Your task to perform on an android device: install app "Duolingo: language lessons" Image 0: 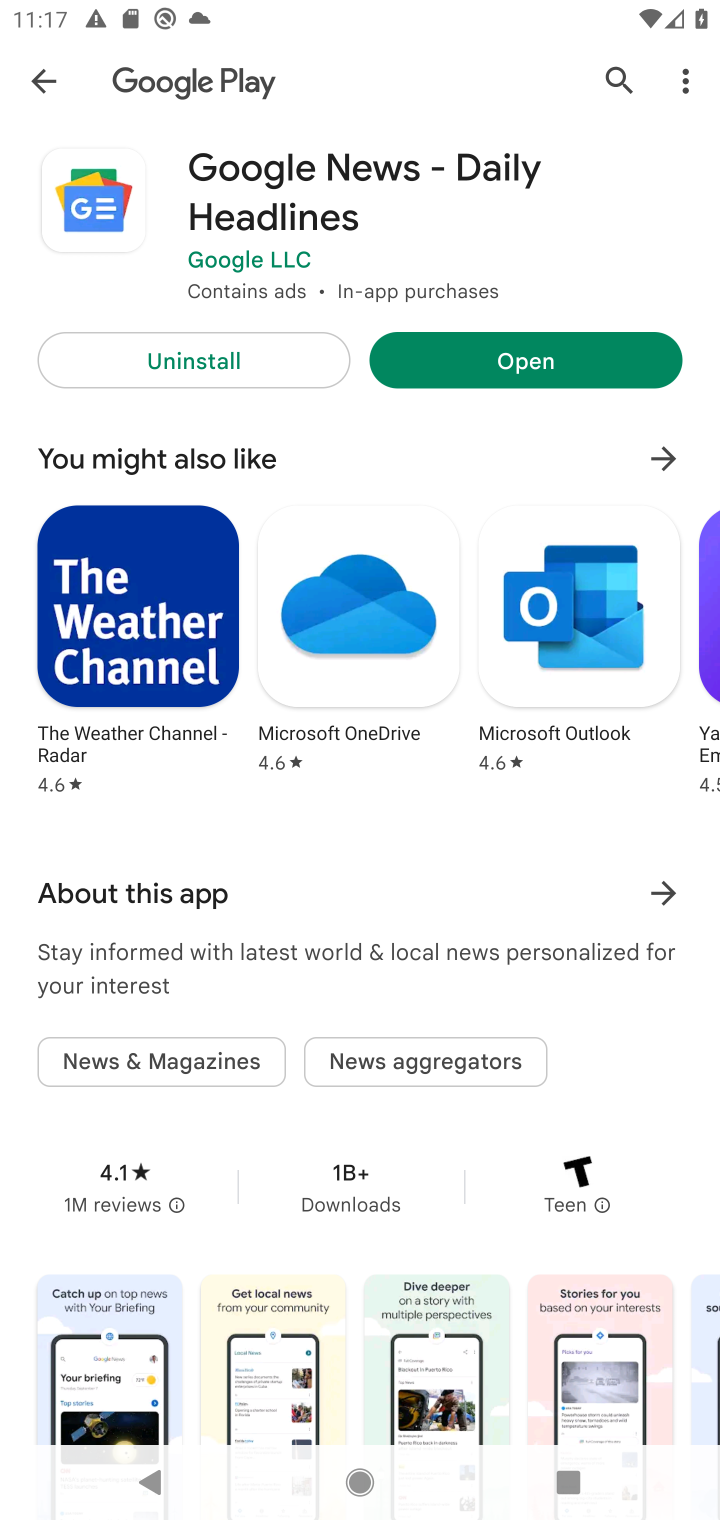
Step 0: press home button
Your task to perform on an android device: install app "Duolingo: language lessons" Image 1: 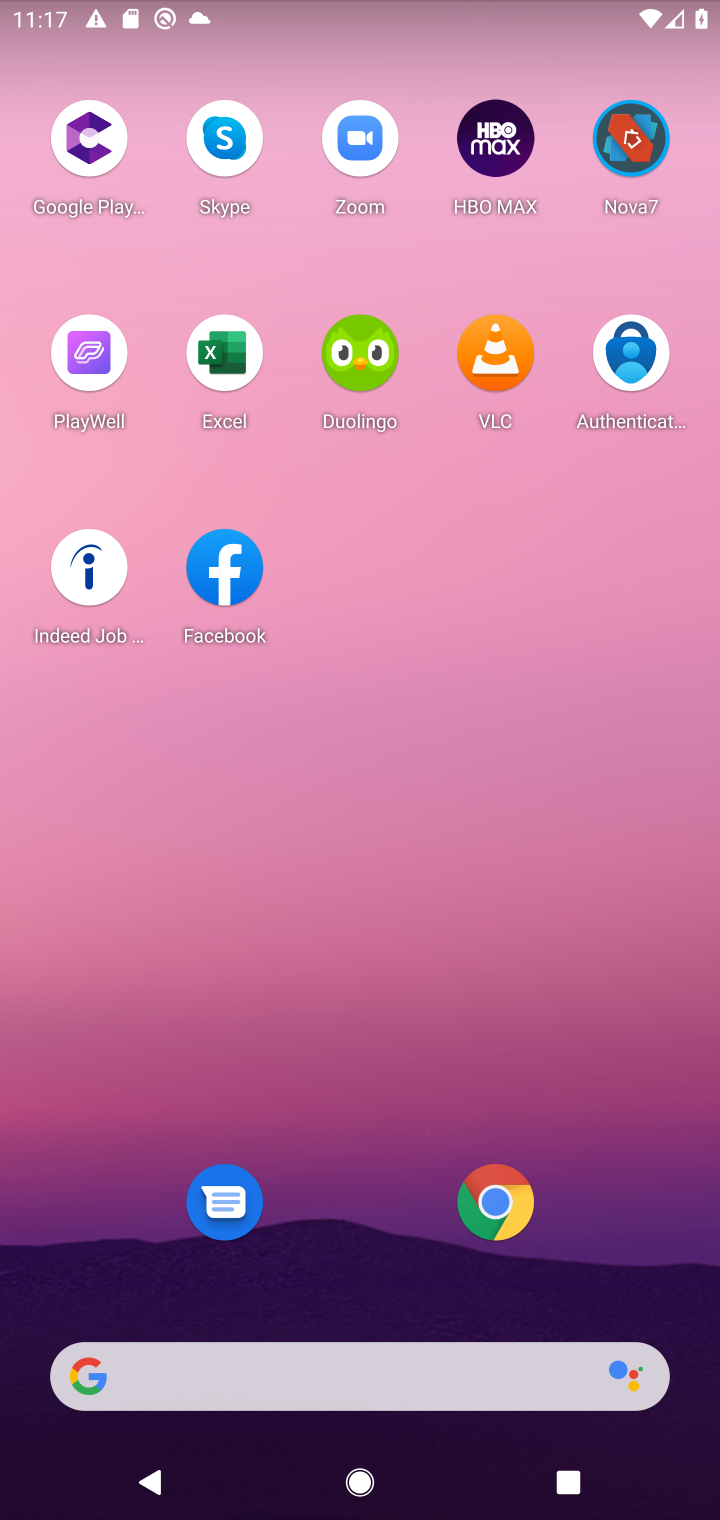
Step 1: click (345, 1396)
Your task to perform on an android device: install app "Duolingo: language lessons" Image 2: 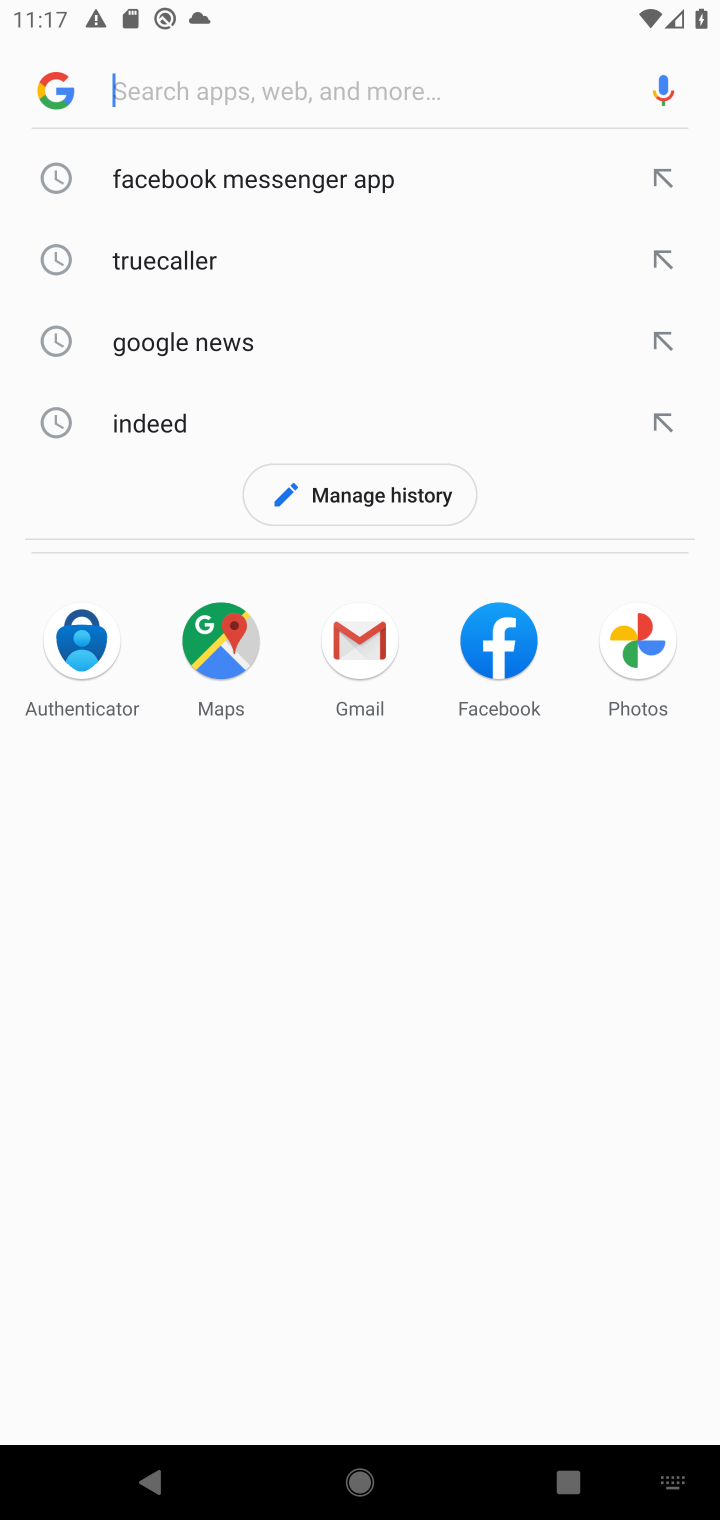
Step 2: type "duolingo"
Your task to perform on an android device: install app "Duolingo: language lessons" Image 3: 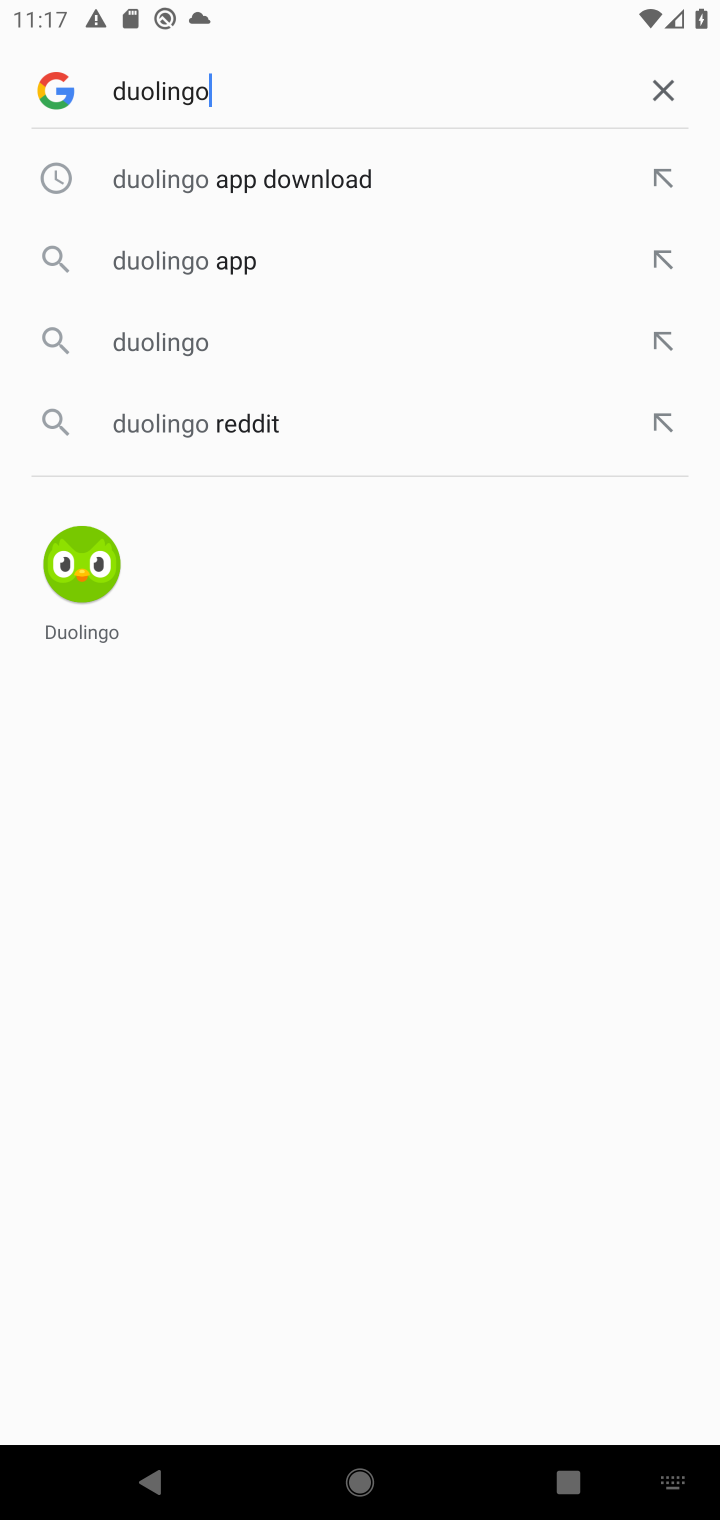
Step 3: click (236, 203)
Your task to perform on an android device: install app "Duolingo: language lessons" Image 4: 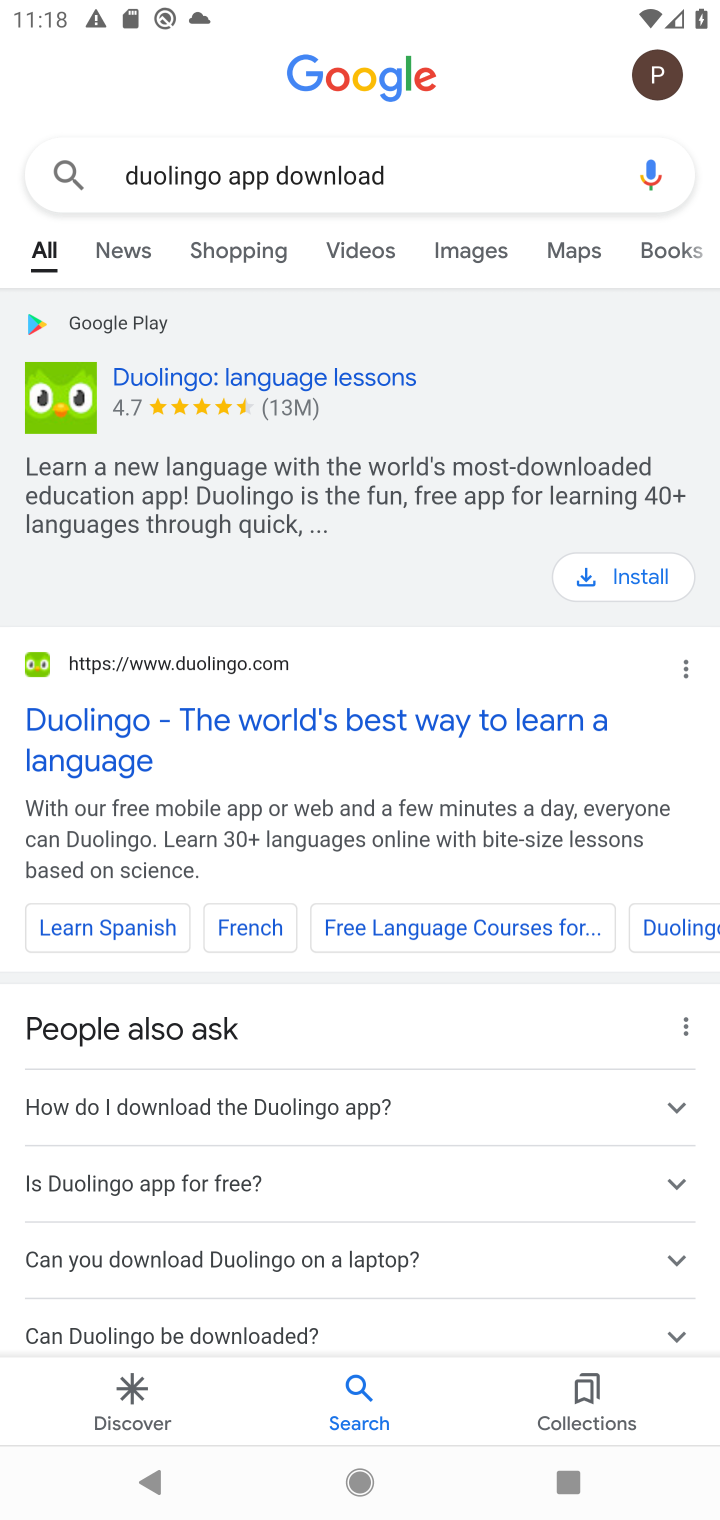
Step 4: click (587, 589)
Your task to perform on an android device: install app "Duolingo: language lessons" Image 5: 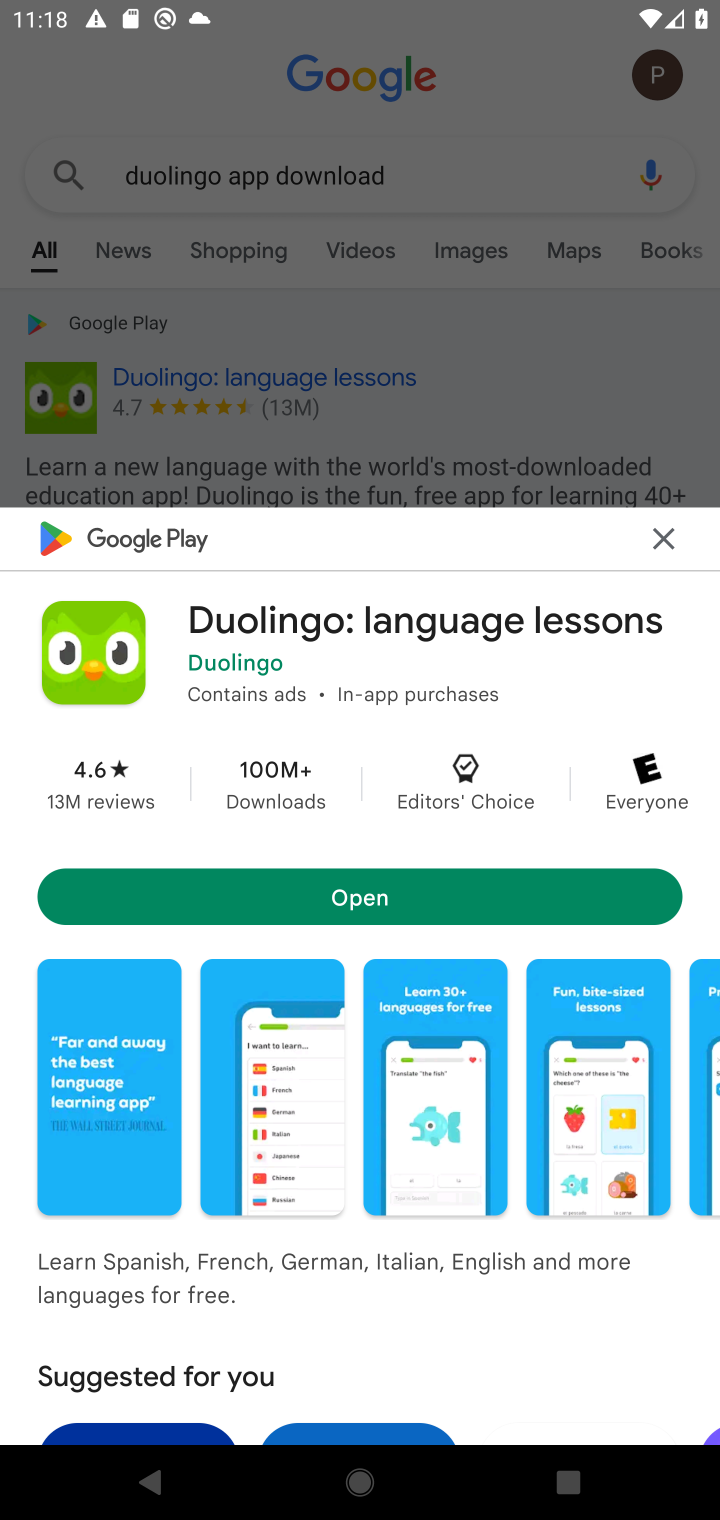
Step 5: click (572, 882)
Your task to perform on an android device: install app "Duolingo: language lessons" Image 6: 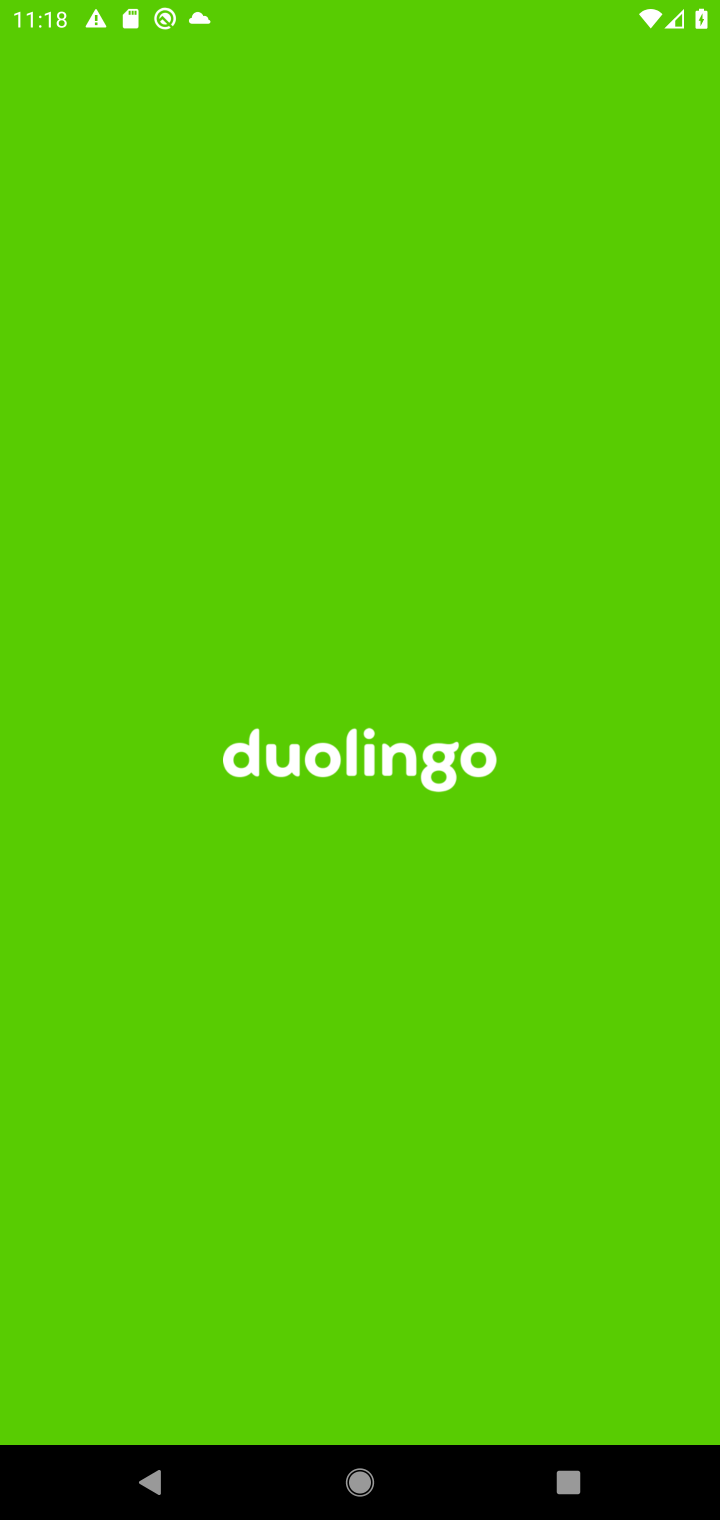
Step 6: task complete